Your task to perform on an android device: turn notification dots on Image 0: 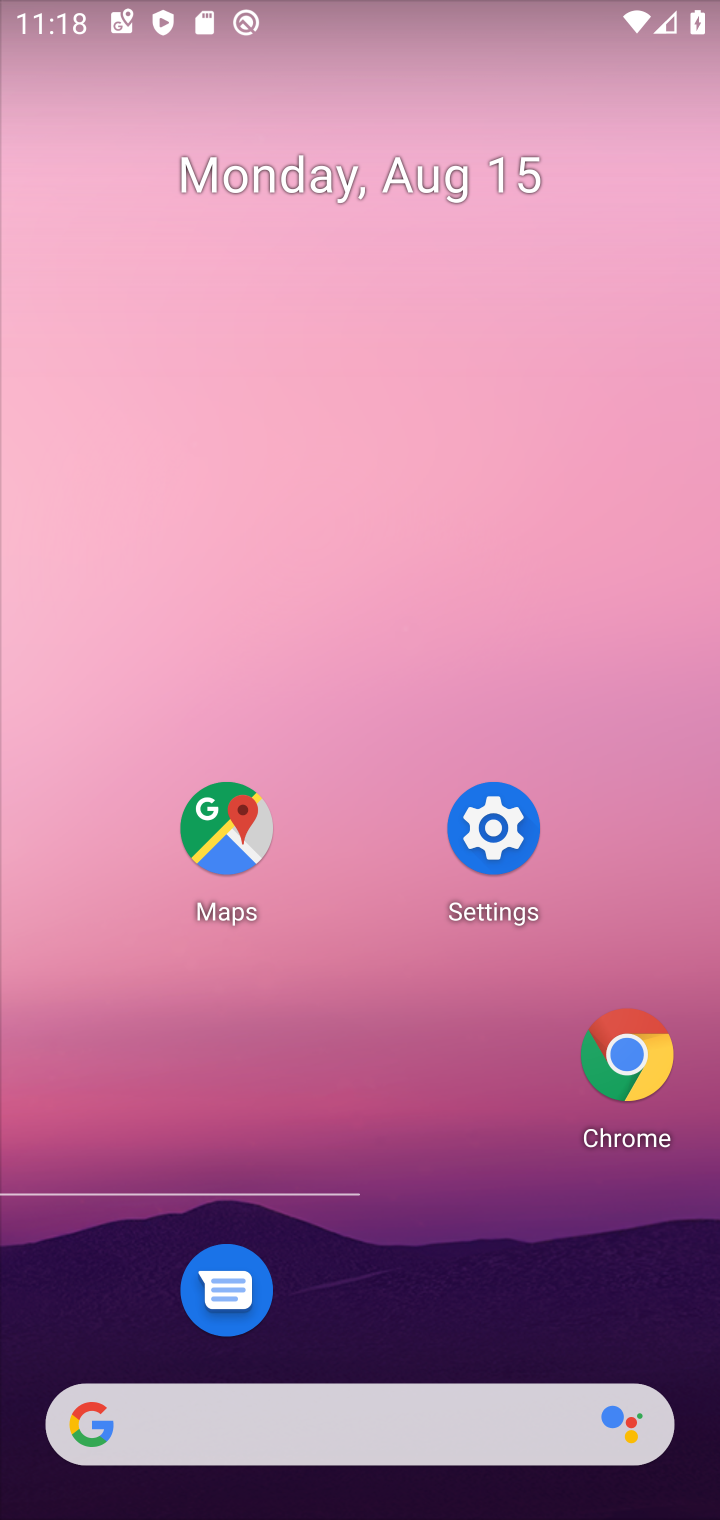
Step 0: click (515, 819)
Your task to perform on an android device: turn notification dots on Image 1: 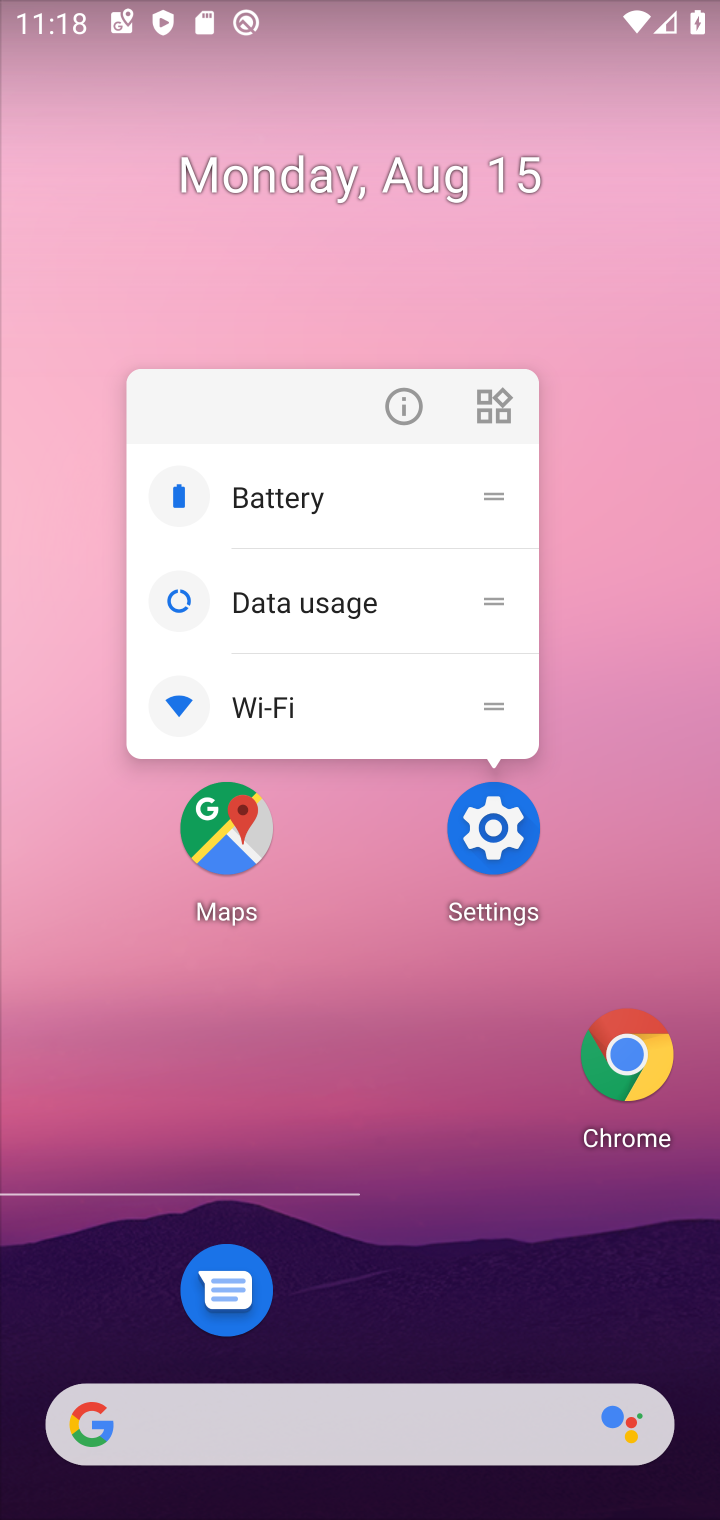
Step 1: click (471, 828)
Your task to perform on an android device: turn notification dots on Image 2: 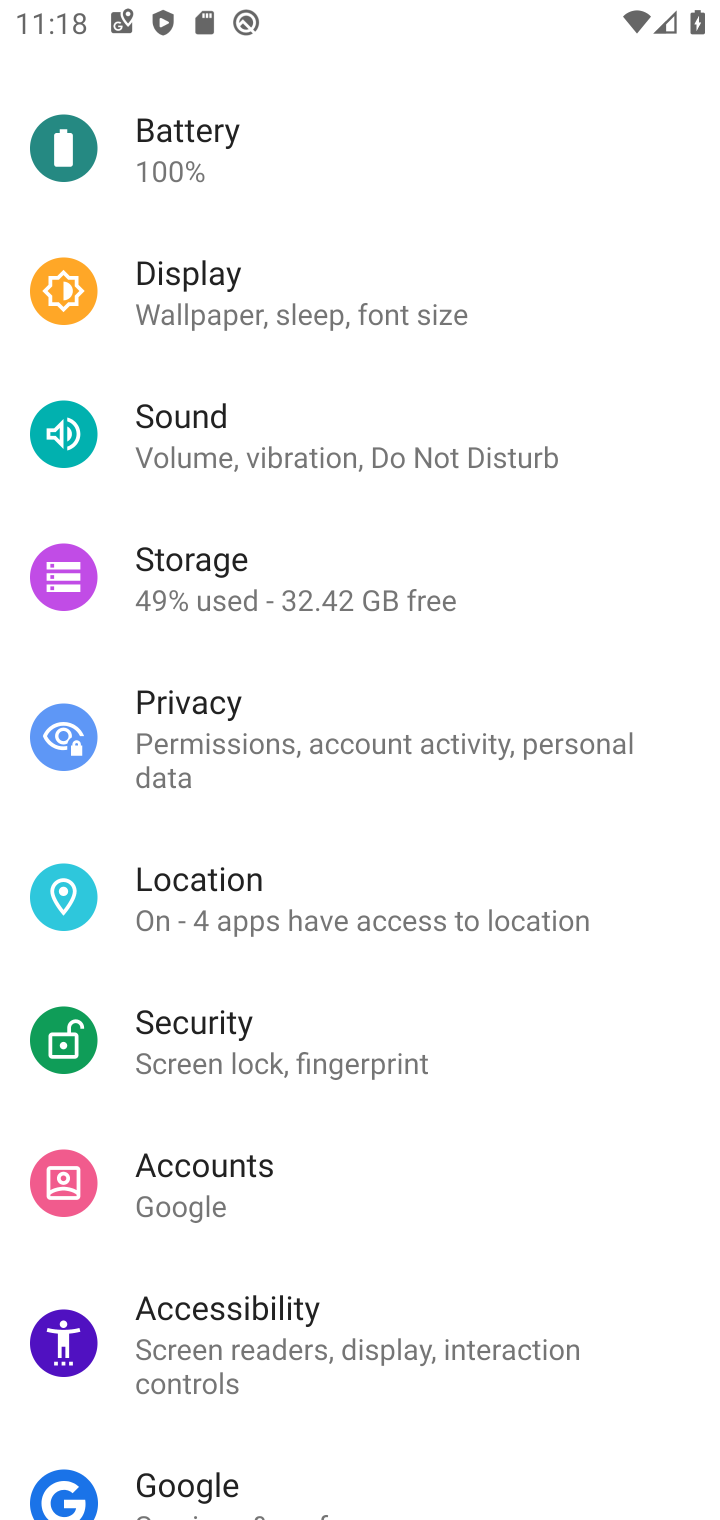
Step 2: drag from (489, 215) to (462, 1095)
Your task to perform on an android device: turn notification dots on Image 3: 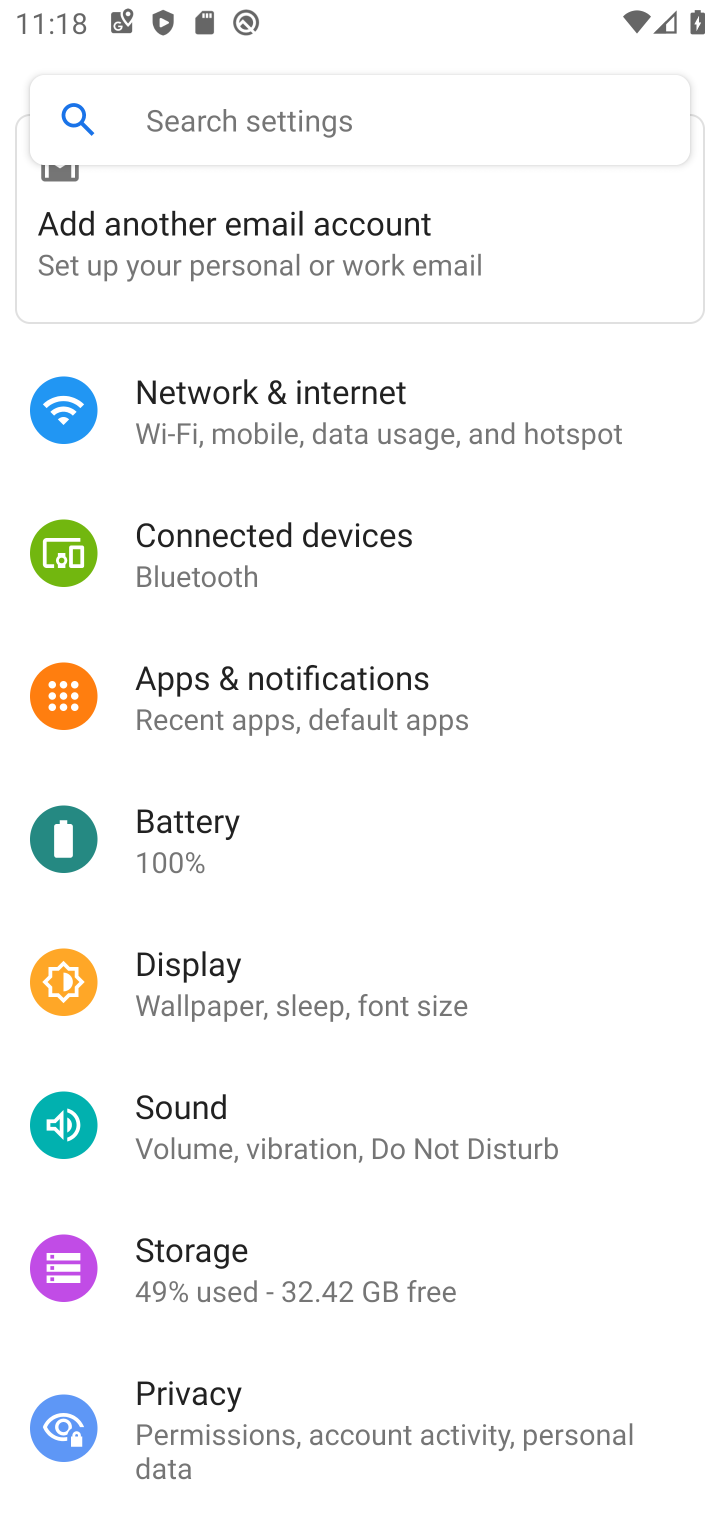
Step 3: click (373, 686)
Your task to perform on an android device: turn notification dots on Image 4: 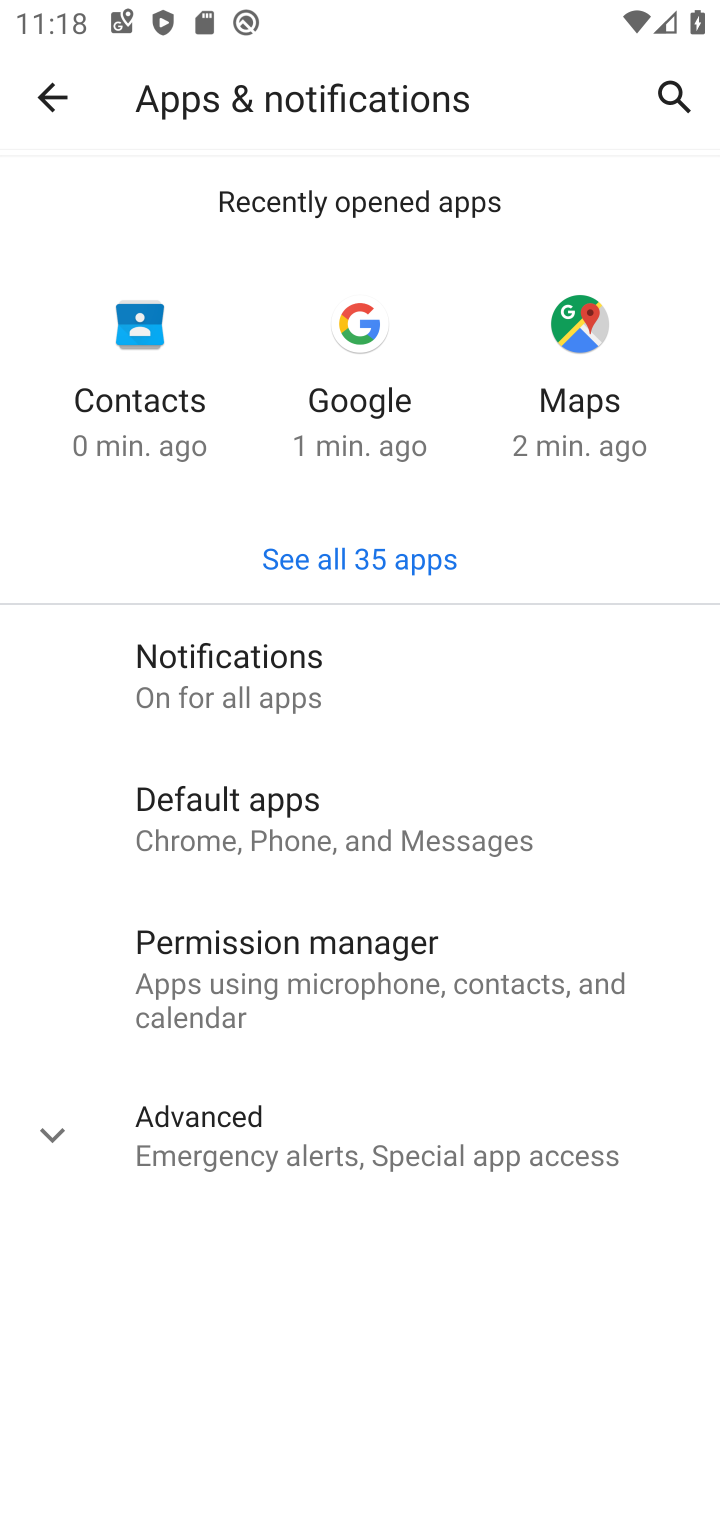
Step 4: click (176, 671)
Your task to perform on an android device: turn notification dots on Image 5: 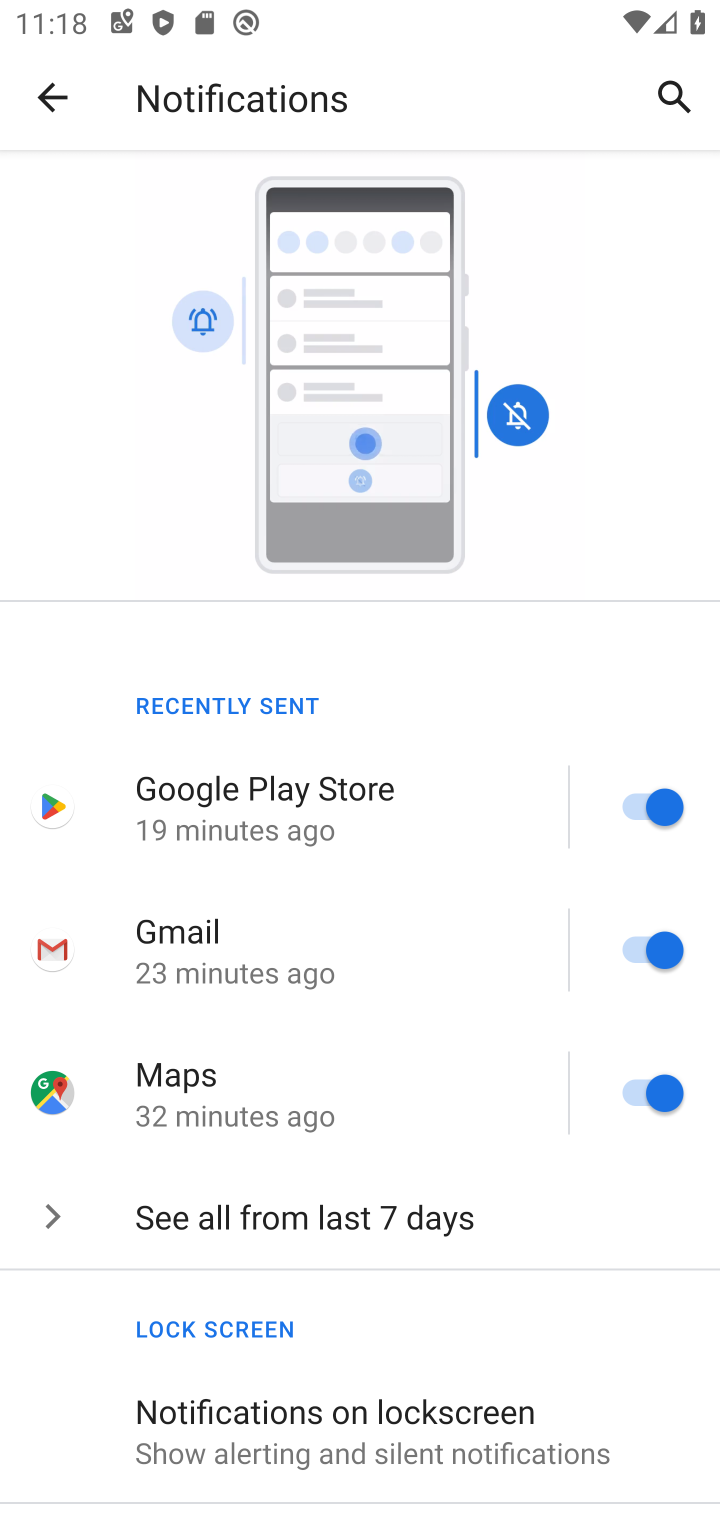
Step 5: drag from (357, 1355) to (689, 329)
Your task to perform on an android device: turn notification dots on Image 6: 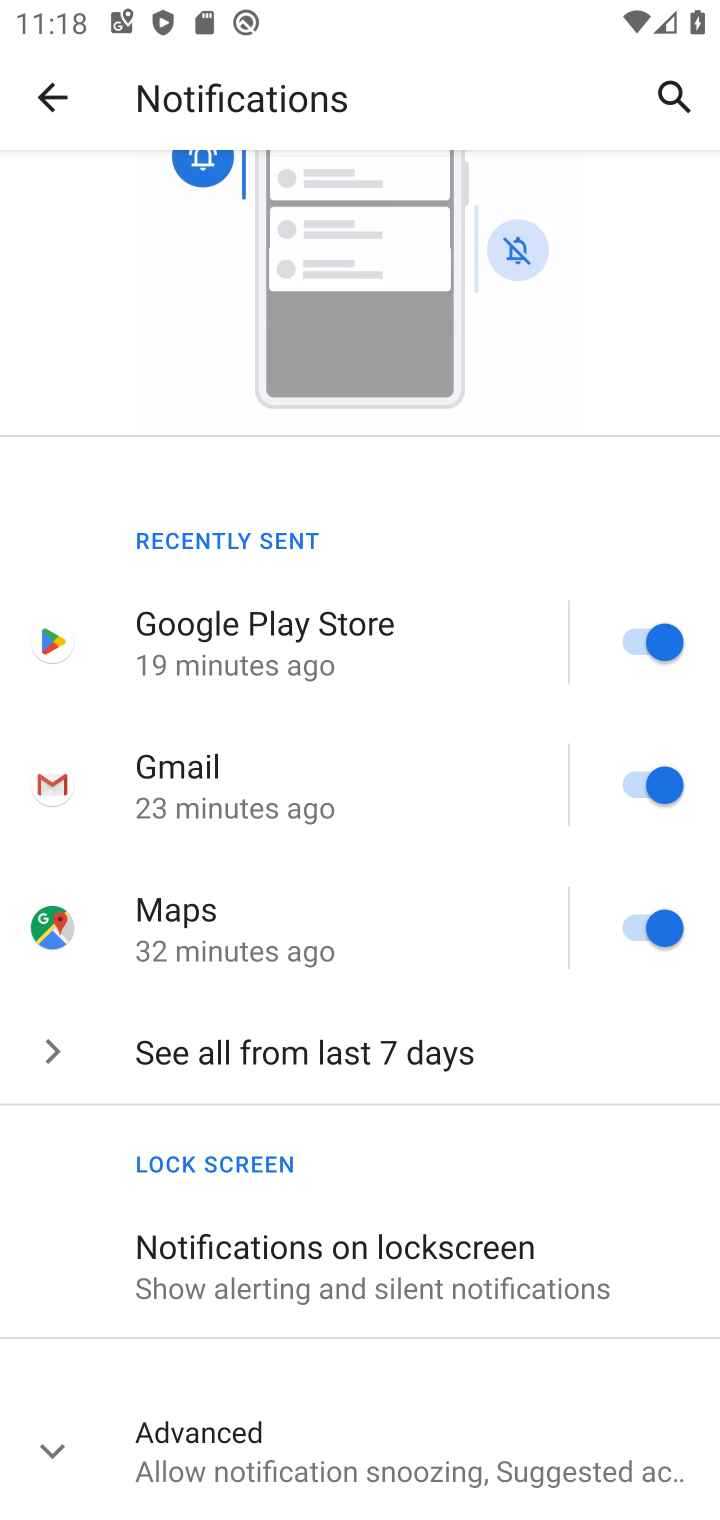
Step 6: click (283, 1441)
Your task to perform on an android device: turn notification dots on Image 7: 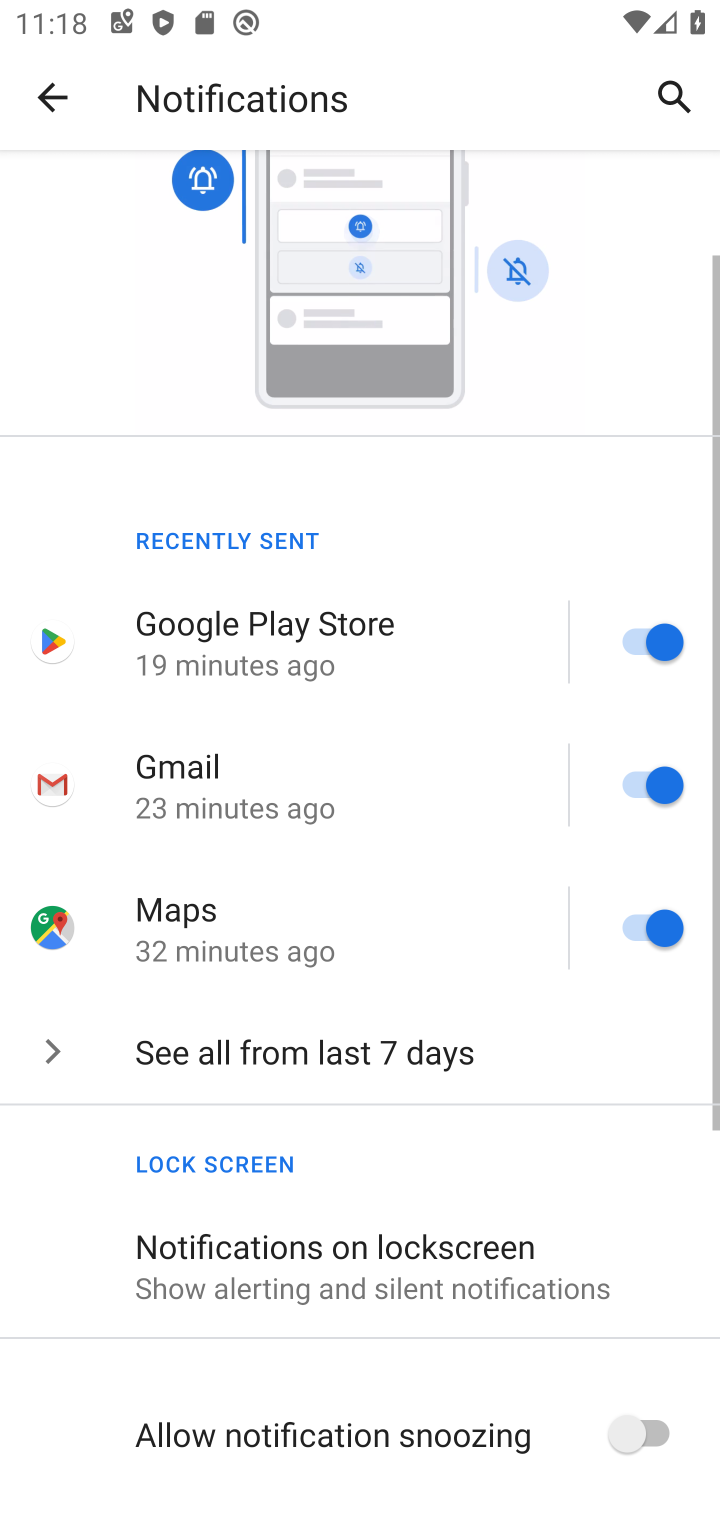
Step 7: task complete